Your task to perform on an android device: Open settings on Google Maps Image 0: 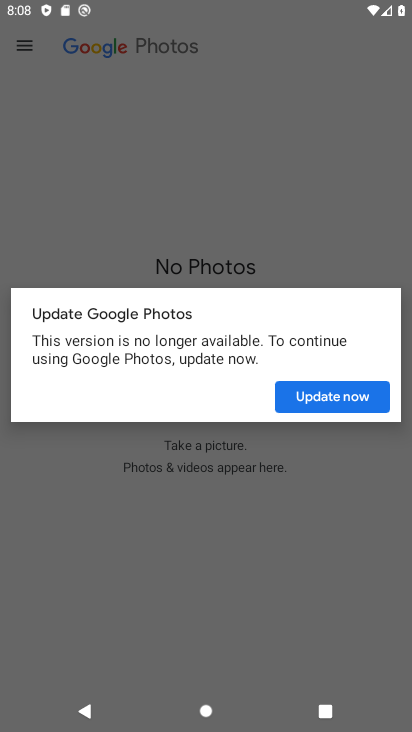
Step 0: press home button
Your task to perform on an android device: Open settings on Google Maps Image 1: 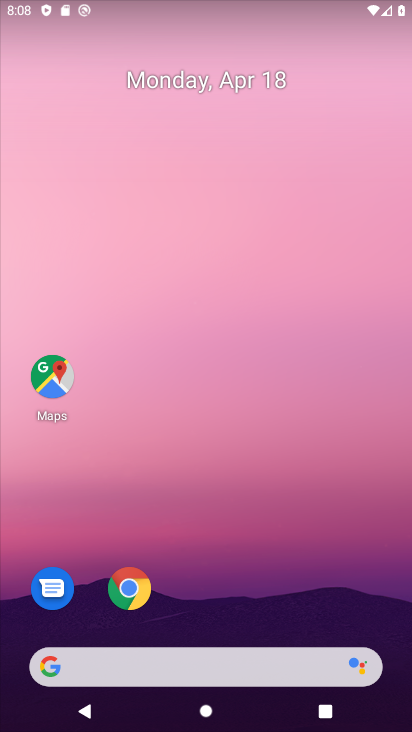
Step 1: click (52, 384)
Your task to perform on an android device: Open settings on Google Maps Image 2: 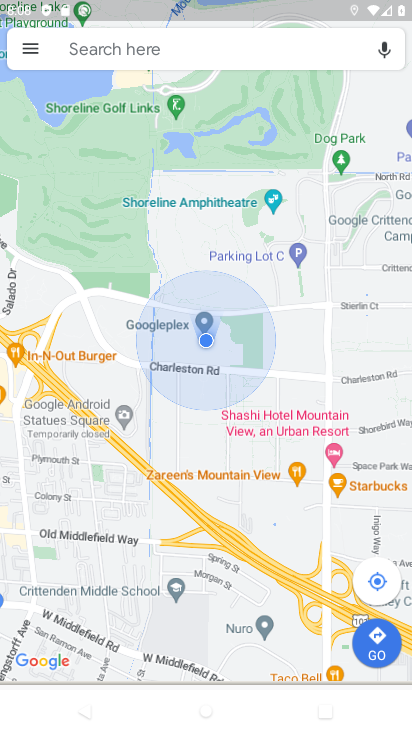
Step 2: click (30, 51)
Your task to perform on an android device: Open settings on Google Maps Image 3: 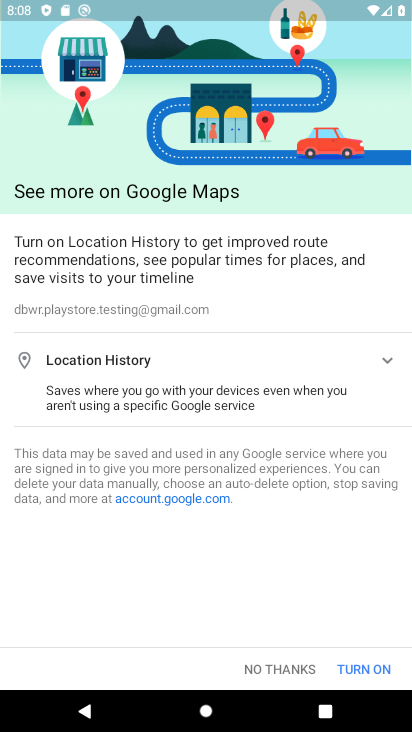
Step 3: click (355, 672)
Your task to perform on an android device: Open settings on Google Maps Image 4: 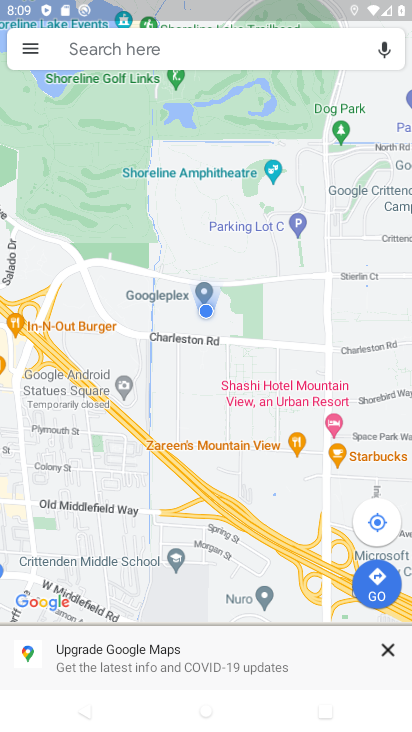
Step 4: click (27, 50)
Your task to perform on an android device: Open settings on Google Maps Image 5: 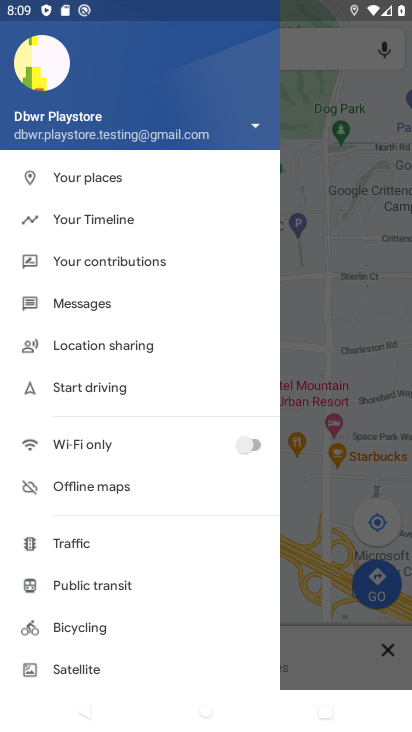
Step 5: drag from (157, 563) to (151, 85)
Your task to perform on an android device: Open settings on Google Maps Image 6: 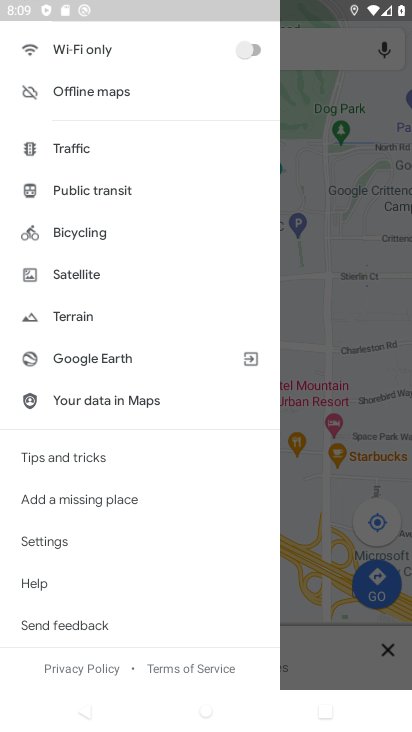
Step 6: click (57, 541)
Your task to perform on an android device: Open settings on Google Maps Image 7: 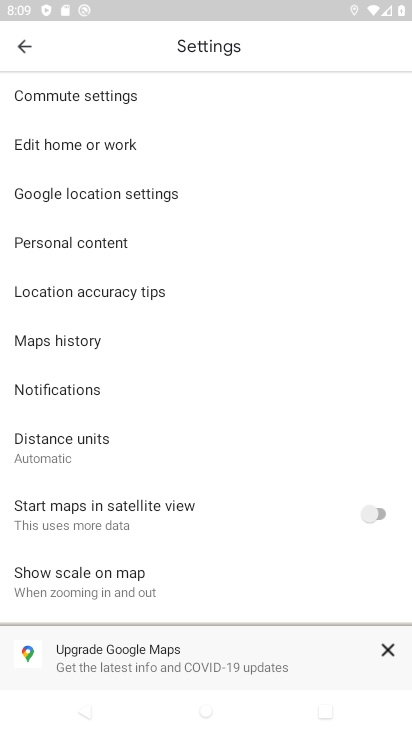
Step 7: task complete